Your task to perform on an android device: open device folders in google photos Image 0: 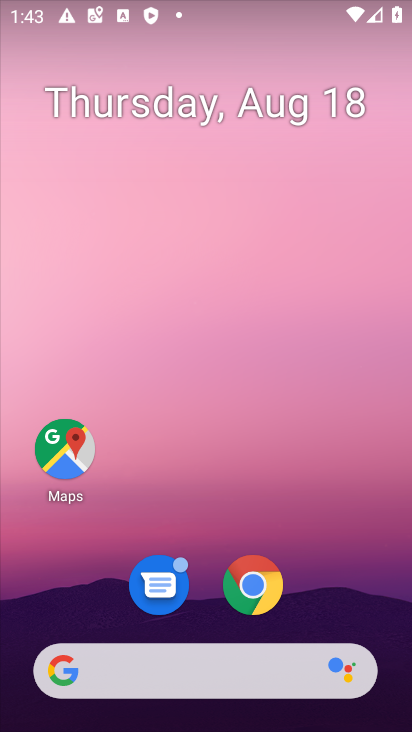
Step 0: drag from (228, 528) to (255, 0)
Your task to perform on an android device: open device folders in google photos Image 1: 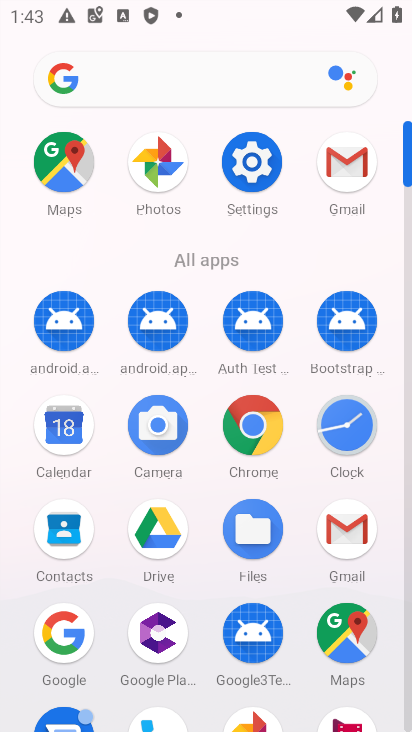
Step 1: click (161, 153)
Your task to perform on an android device: open device folders in google photos Image 2: 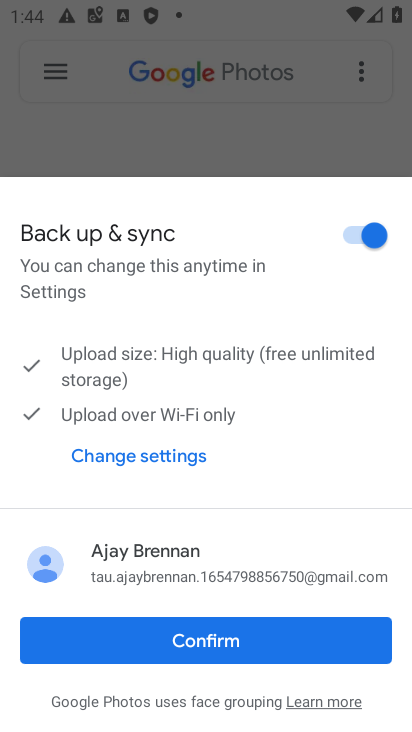
Step 2: click (274, 647)
Your task to perform on an android device: open device folders in google photos Image 3: 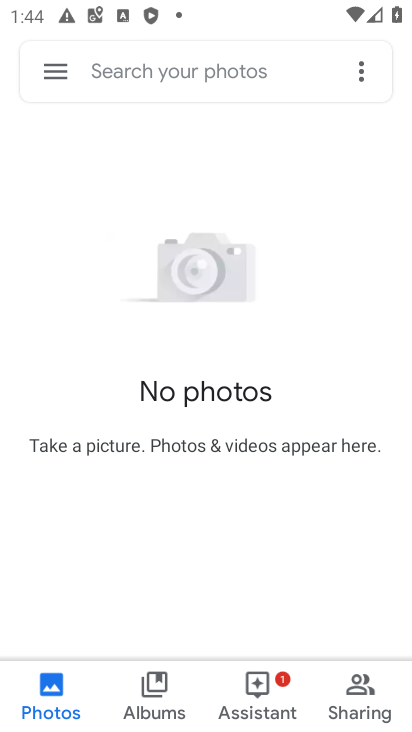
Step 3: click (50, 72)
Your task to perform on an android device: open device folders in google photos Image 4: 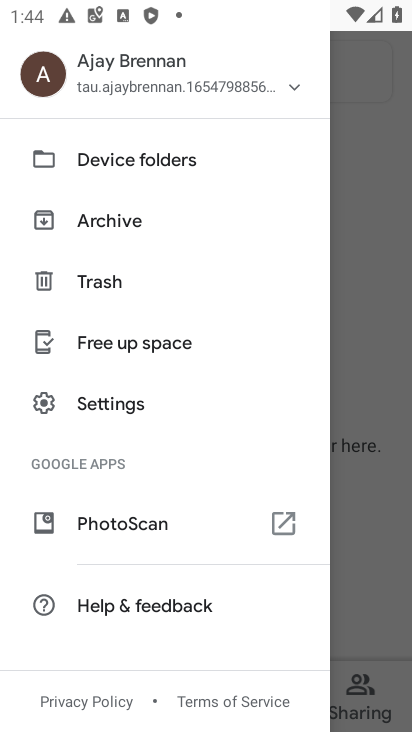
Step 4: click (92, 154)
Your task to perform on an android device: open device folders in google photos Image 5: 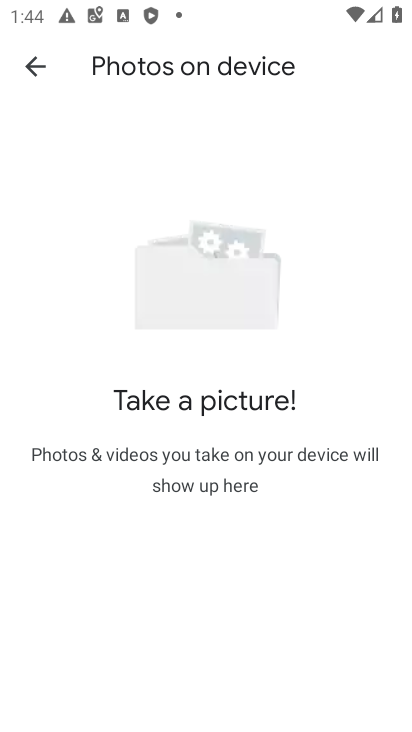
Step 5: task complete